Your task to perform on an android device: View the shopping cart on walmart. Add "razer blade" to the cart on walmart, then select checkout. Image 0: 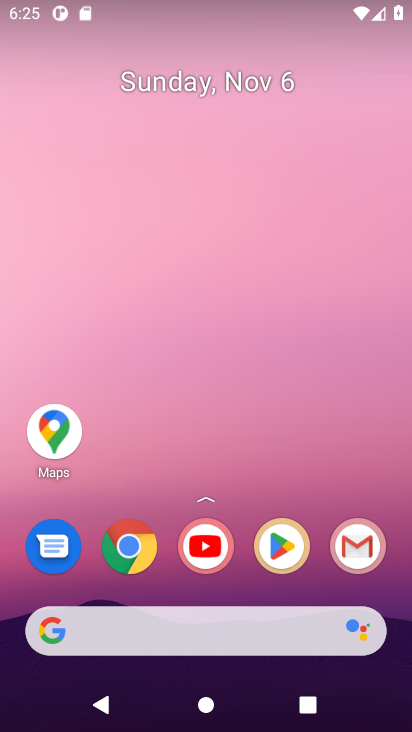
Step 0: click (133, 548)
Your task to perform on an android device: View the shopping cart on walmart. Add "razer blade" to the cart on walmart, then select checkout. Image 1: 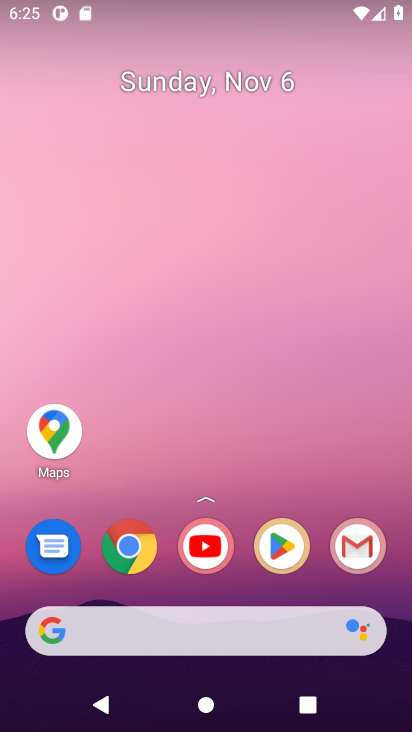
Step 1: click (133, 548)
Your task to perform on an android device: View the shopping cart on walmart. Add "razer blade" to the cart on walmart, then select checkout. Image 2: 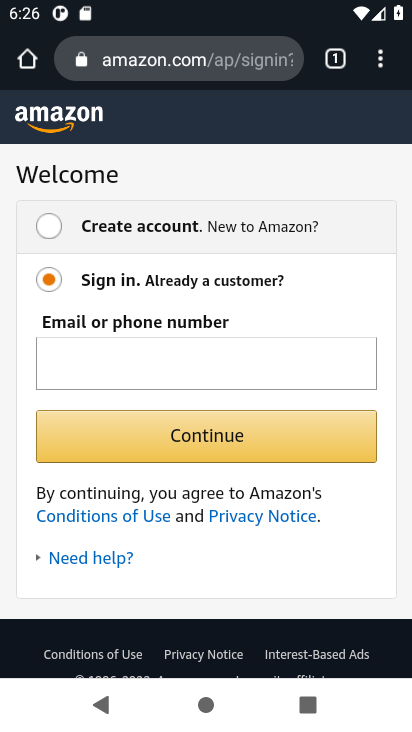
Step 2: click (168, 58)
Your task to perform on an android device: View the shopping cart on walmart. Add "razer blade" to the cart on walmart, then select checkout. Image 3: 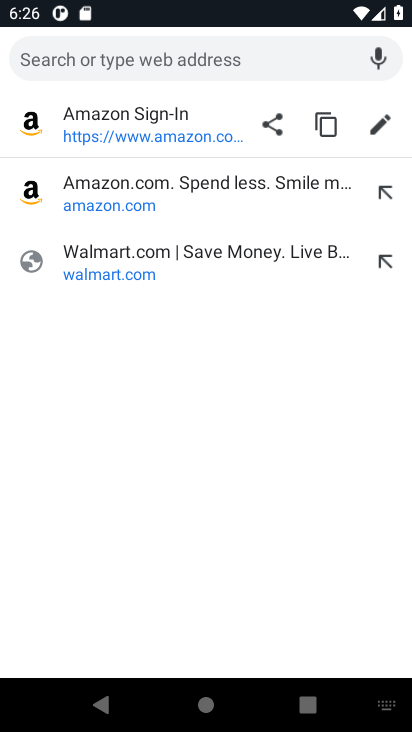
Step 3: type "walmart.com"
Your task to perform on an android device: View the shopping cart on walmart. Add "razer blade" to the cart on walmart, then select checkout. Image 4: 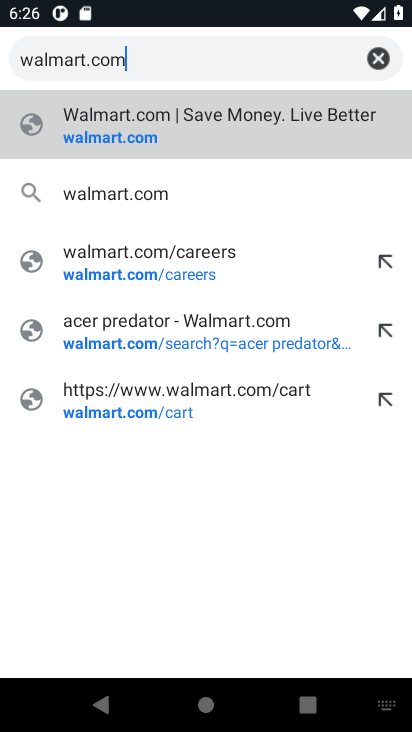
Step 4: click (148, 147)
Your task to perform on an android device: View the shopping cart on walmart. Add "razer blade" to the cart on walmart, then select checkout. Image 5: 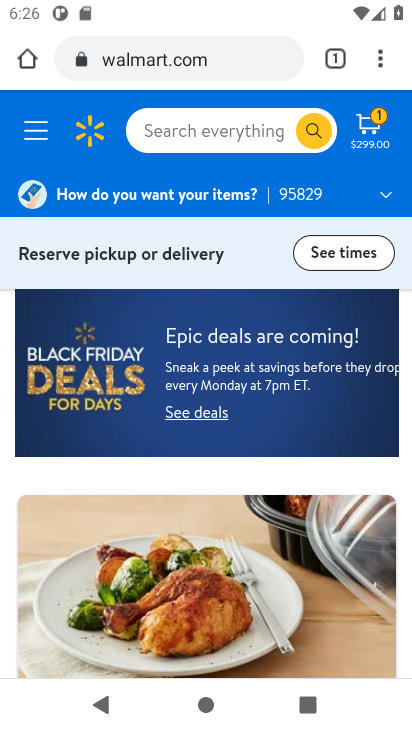
Step 5: click (383, 125)
Your task to perform on an android device: View the shopping cart on walmart. Add "razer blade" to the cart on walmart, then select checkout. Image 6: 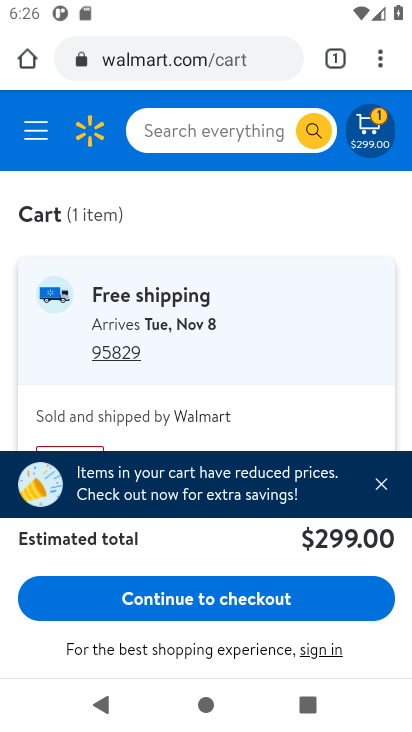
Step 6: drag from (288, 401) to (286, 190)
Your task to perform on an android device: View the shopping cart on walmart. Add "razer blade" to the cart on walmart, then select checkout. Image 7: 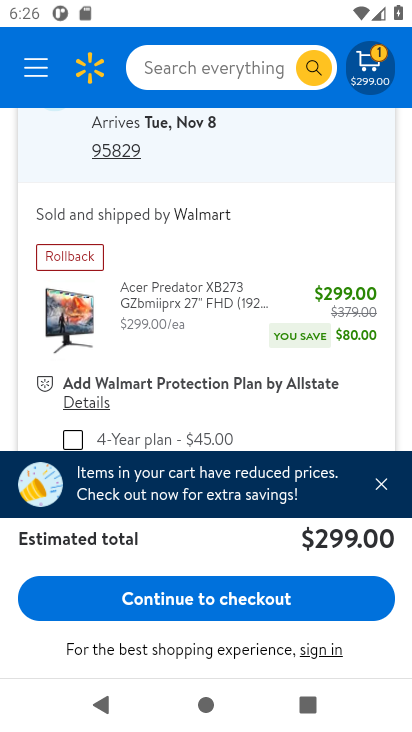
Step 7: click (377, 480)
Your task to perform on an android device: View the shopping cart on walmart. Add "razer blade" to the cart on walmart, then select checkout. Image 8: 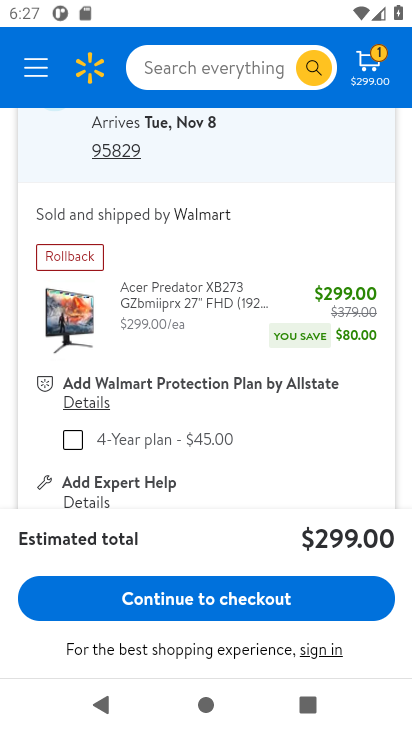
Step 8: click (222, 78)
Your task to perform on an android device: View the shopping cart on walmart. Add "razer blade" to the cart on walmart, then select checkout. Image 9: 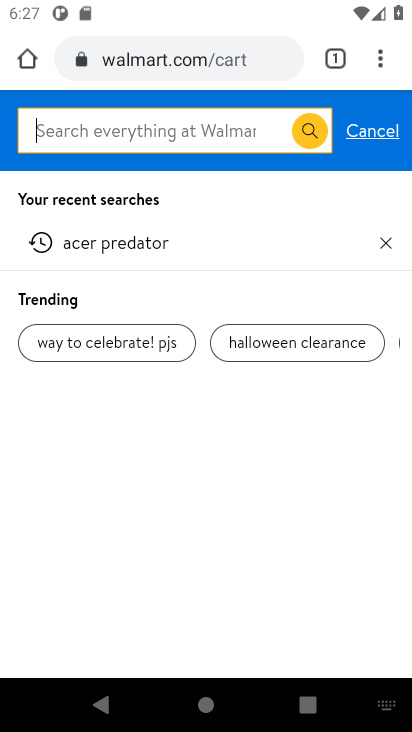
Step 9: type "razer blade"
Your task to perform on an android device: View the shopping cart on walmart. Add "razer blade" to the cart on walmart, then select checkout. Image 10: 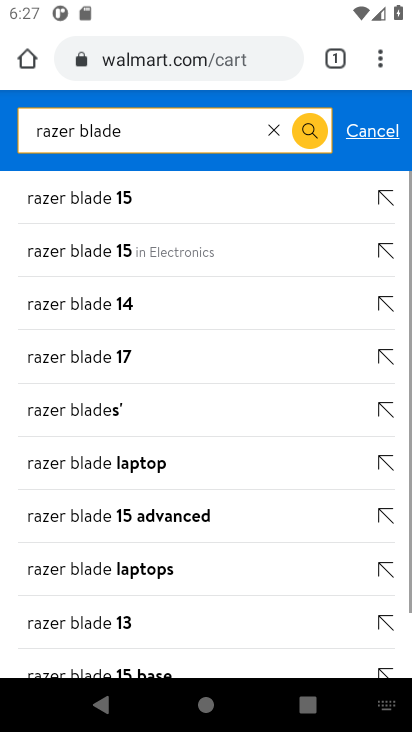
Step 10: click (304, 130)
Your task to perform on an android device: View the shopping cart on walmart. Add "razer blade" to the cart on walmart, then select checkout. Image 11: 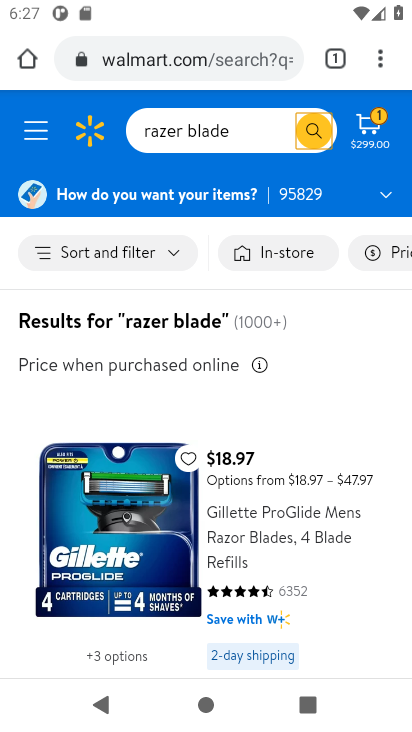
Step 11: click (176, 560)
Your task to perform on an android device: View the shopping cart on walmart. Add "razer blade" to the cart on walmart, then select checkout. Image 12: 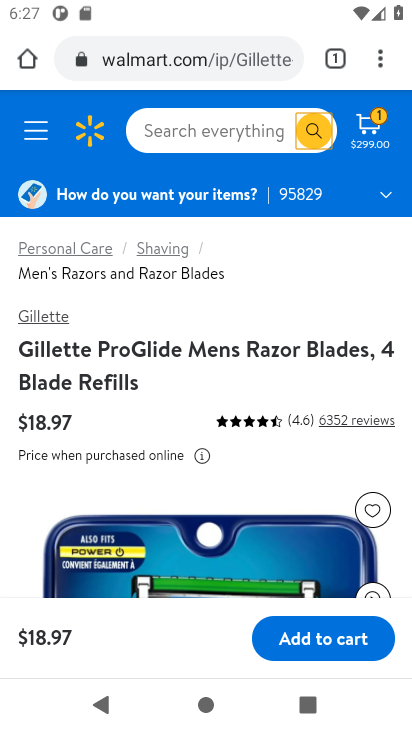
Step 12: click (307, 639)
Your task to perform on an android device: View the shopping cart on walmart. Add "razer blade" to the cart on walmart, then select checkout. Image 13: 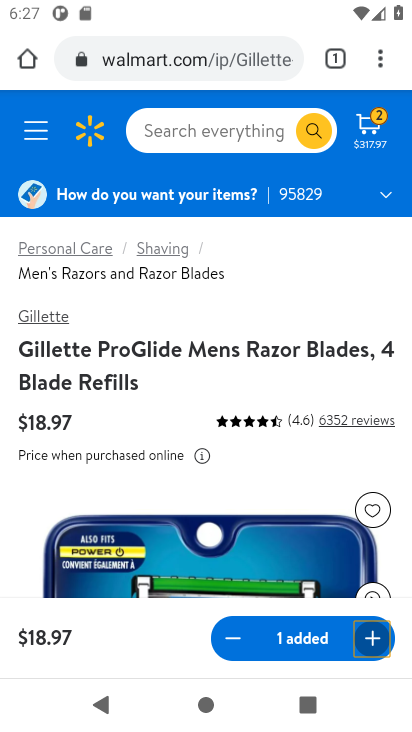
Step 13: click (386, 120)
Your task to perform on an android device: View the shopping cart on walmart. Add "razer blade" to the cart on walmart, then select checkout. Image 14: 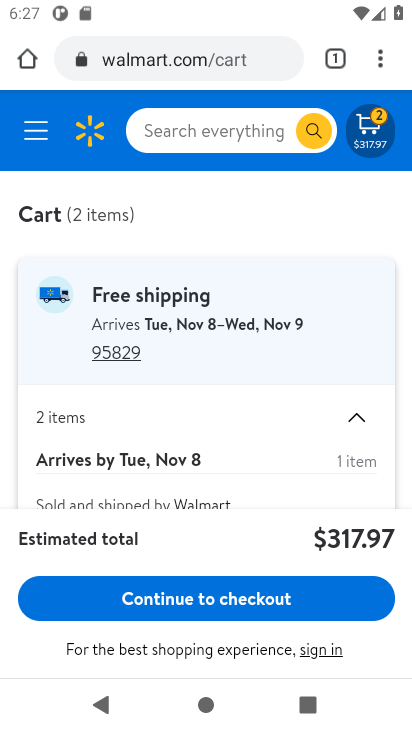
Step 14: click (237, 605)
Your task to perform on an android device: View the shopping cart on walmart. Add "razer blade" to the cart on walmart, then select checkout. Image 15: 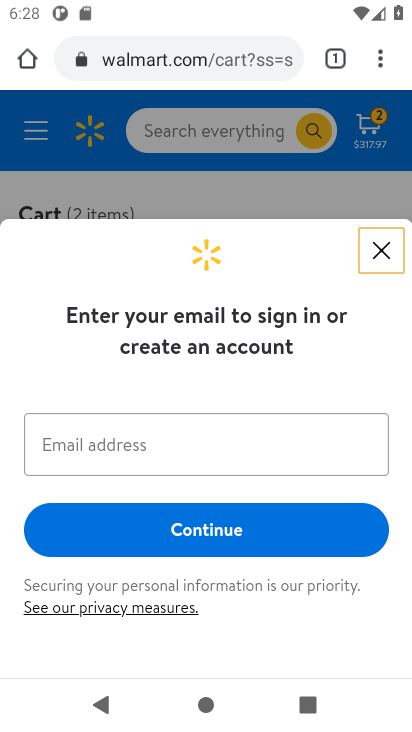
Step 15: task complete